Your task to perform on an android device: choose inbox layout in the gmail app Image 0: 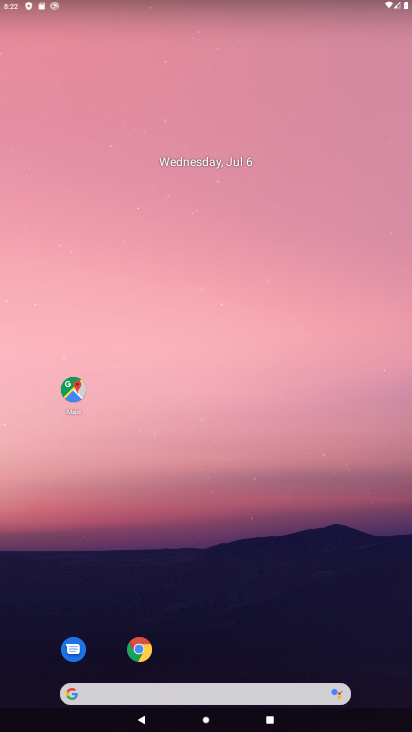
Step 0: drag from (201, 575) to (213, 118)
Your task to perform on an android device: choose inbox layout in the gmail app Image 1: 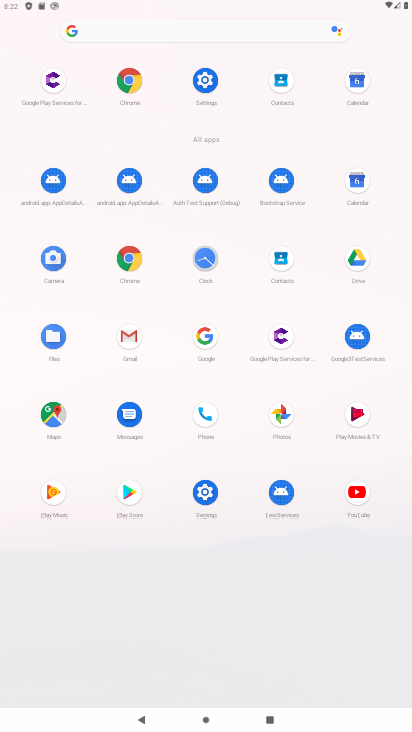
Step 1: click (134, 337)
Your task to perform on an android device: choose inbox layout in the gmail app Image 2: 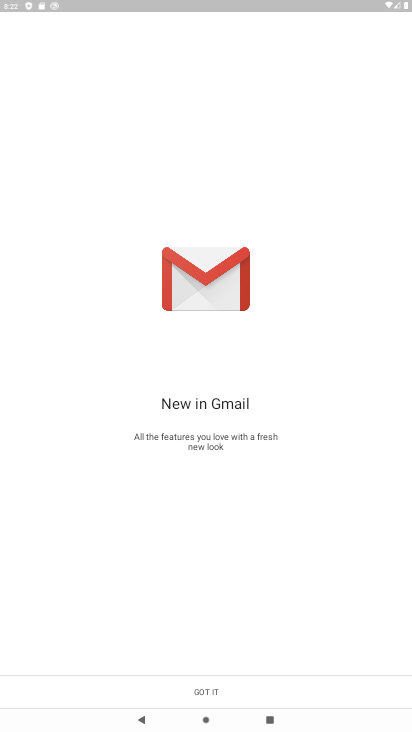
Step 2: click (234, 700)
Your task to perform on an android device: choose inbox layout in the gmail app Image 3: 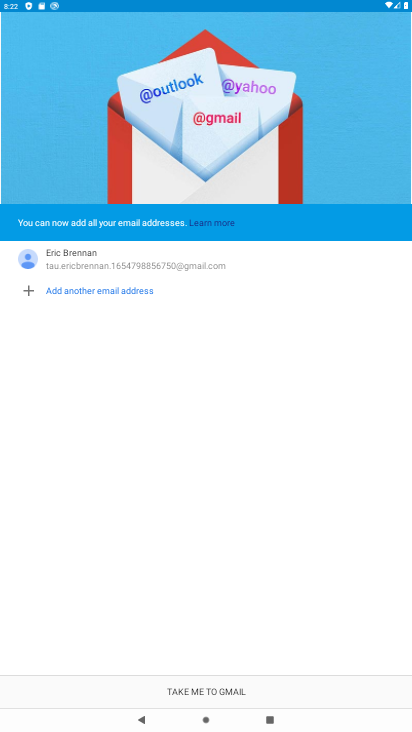
Step 3: click (192, 693)
Your task to perform on an android device: choose inbox layout in the gmail app Image 4: 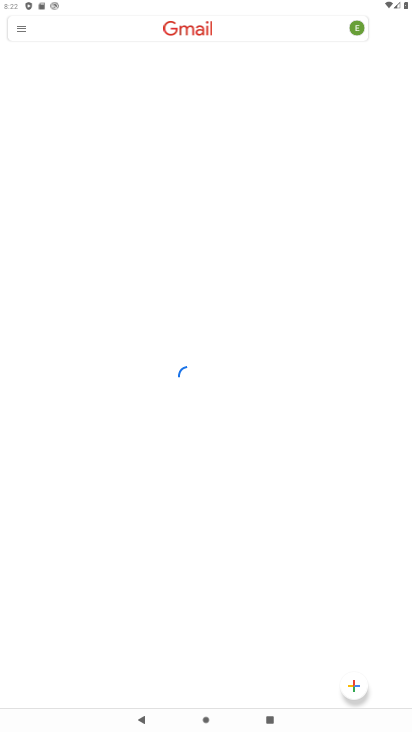
Step 4: click (18, 30)
Your task to perform on an android device: choose inbox layout in the gmail app Image 5: 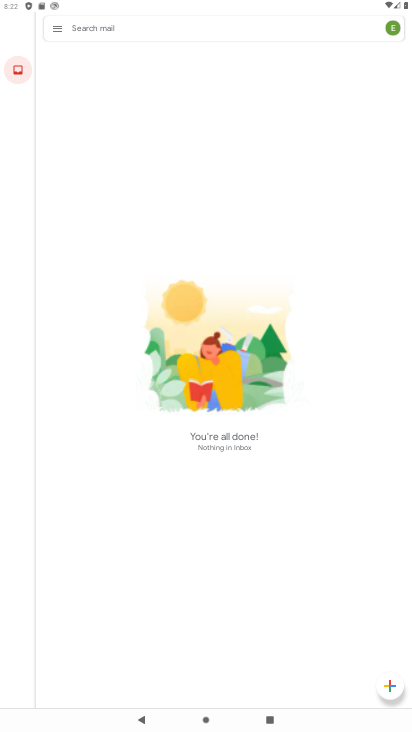
Step 5: click (58, 30)
Your task to perform on an android device: choose inbox layout in the gmail app Image 6: 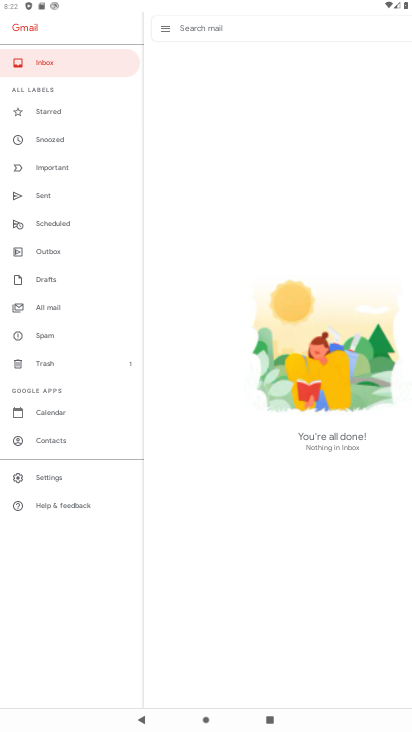
Step 6: click (55, 471)
Your task to perform on an android device: choose inbox layout in the gmail app Image 7: 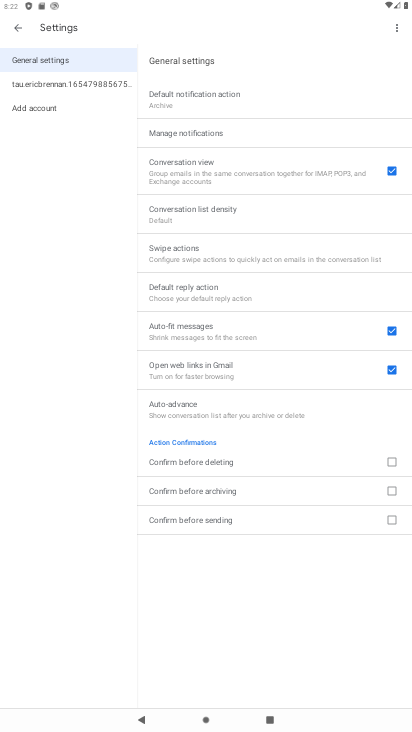
Step 7: click (97, 85)
Your task to perform on an android device: choose inbox layout in the gmail app Image 8: 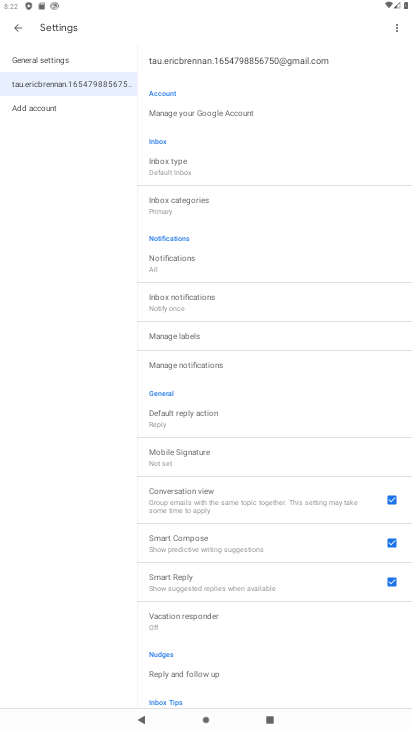
Step 8: click (195, 163)
Your task to perform on an android device: choose inbox layout in the gmail app Image 9: 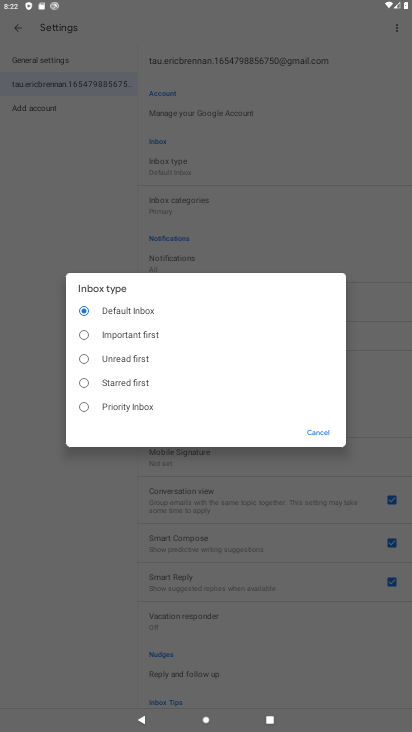
Step 9: click (96, 406)
Your task to perform on an android device: choose inbox layout in the gmail app Image 10: 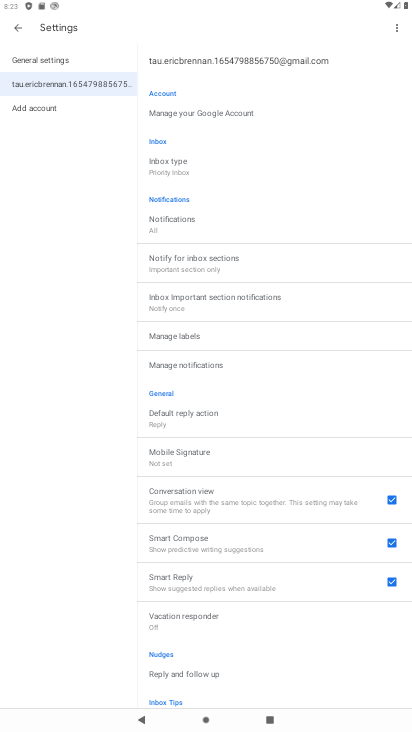
Step 10: task complete